Your task to perform on an android device: toggle translation in the chrome app Image 0: 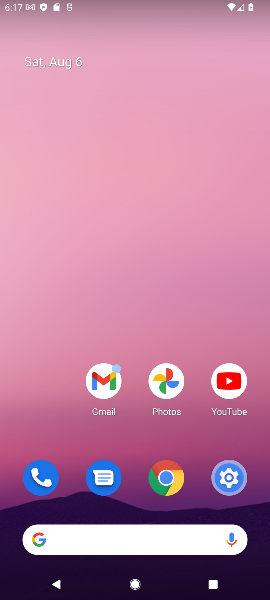
Step 0: click (168, 486)
Your task to perform on an android device: toggle translation in the chrome app Image 1: 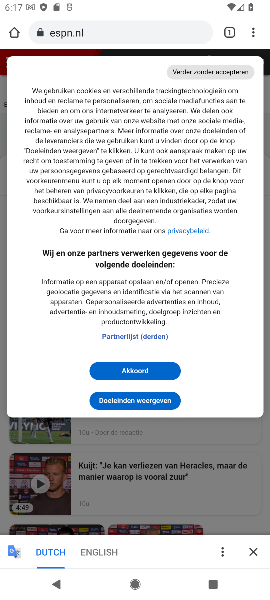
Step 1: click (257, 38)
Your task to perform on an android device: toggle translation in the chrome app Image 2: 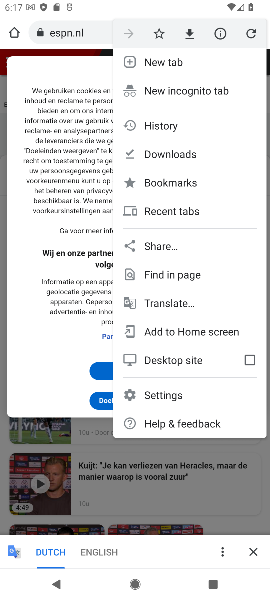
Step 2: click (168, 399)
Your task to perform on an android device: toggle translation in the chrome app Image 3: 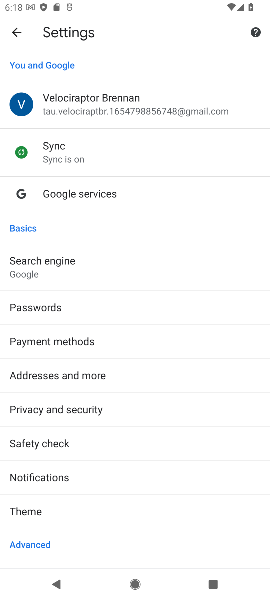
Step 3: drag from (75, 471) to (124, 204)
Your task to perform on an android device: toggle translation in the chrome app Image 4: 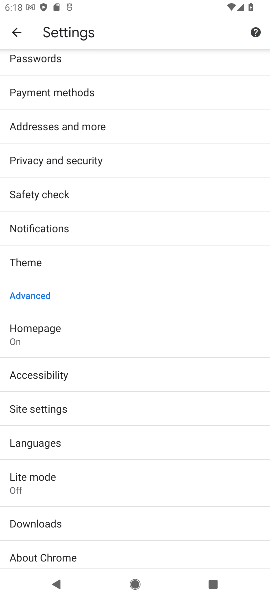
Step 4: click (60, 442)
Your task to perform on an android device: toggle translation in the chrome app Image 5: 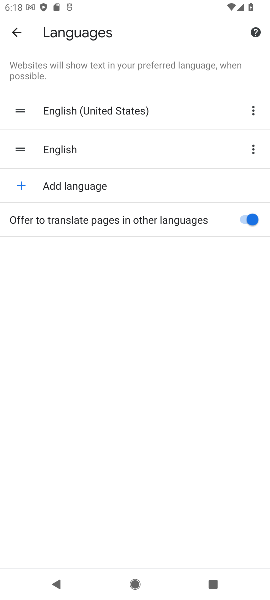
Step 5: click (233, 218)
Your task to perform on an android device: toggle translation in the chrome app Image 6: 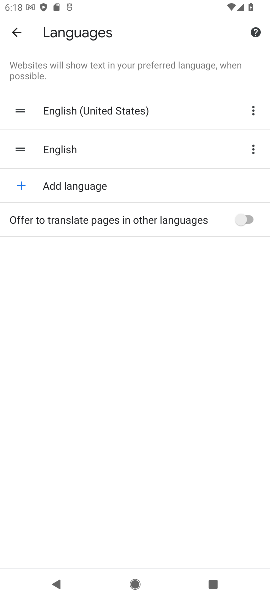
Step 6: task complete